Your task to perform on an android device: change your default location settings in chrome Image 0: 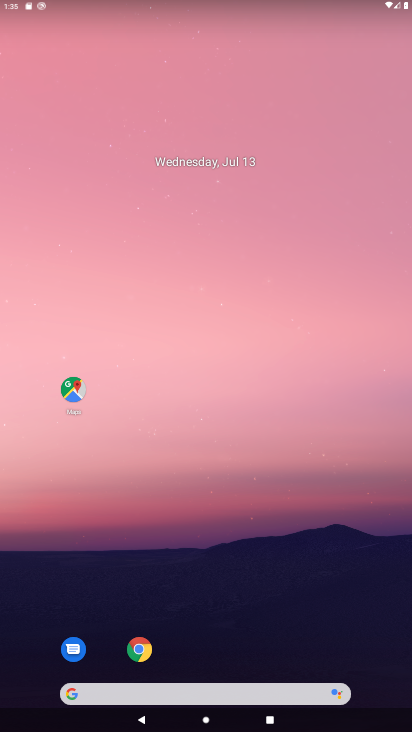
Step 0: drag from (371, 657) to (2, 213)
Your task to perform on an android device: change your default location settings in chrome Image 1: 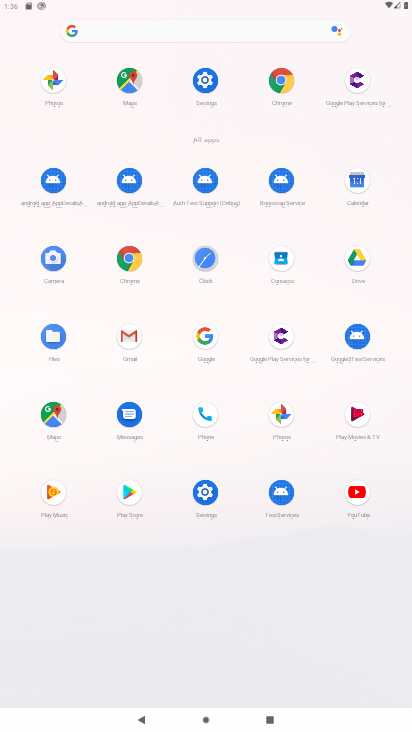
Step 1: click (121, 262)
Your task to perform on an android device: change your default location settings in chrome Image 2: 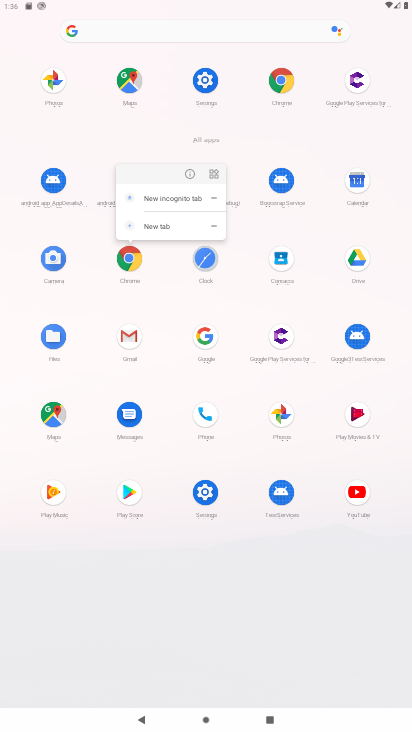
Step 2: click (185, 170)
Your task to perform on an android device: change your default location settings in chrome Image 3: 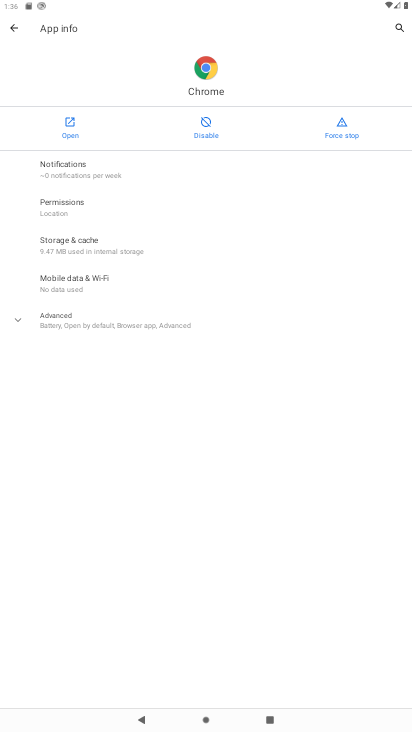
Step 3: click (53, 235)
Your task to perform on an android device: change your default location settings in chrome Image 4: 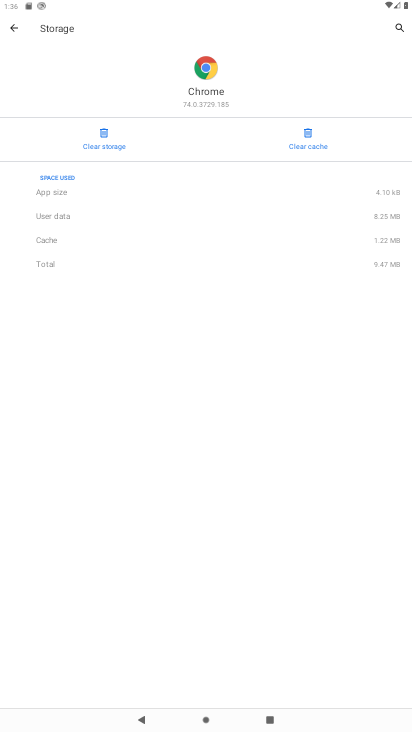
Step 4: click (9, 36)
Your task to perform on an android device: change your default location settings in chrome Image 5: 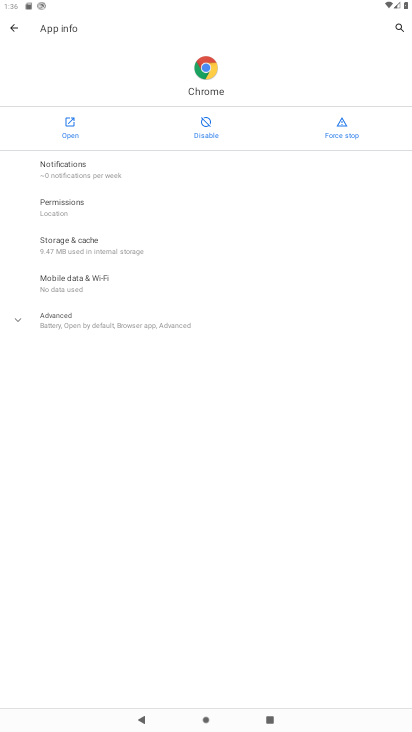
Step 5: click (82, 318)
Your task to perform on an android device: change your default location settings in chrome Image 6: 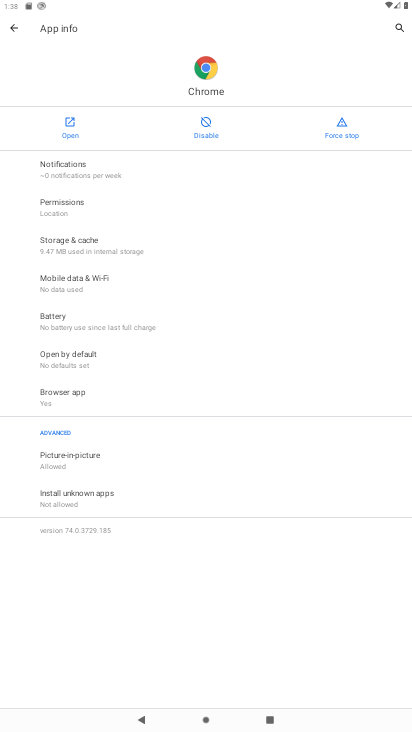
Step 6: click (57, 211)
Your task to perform on an android device: change your default location settings in chrome Image 7: 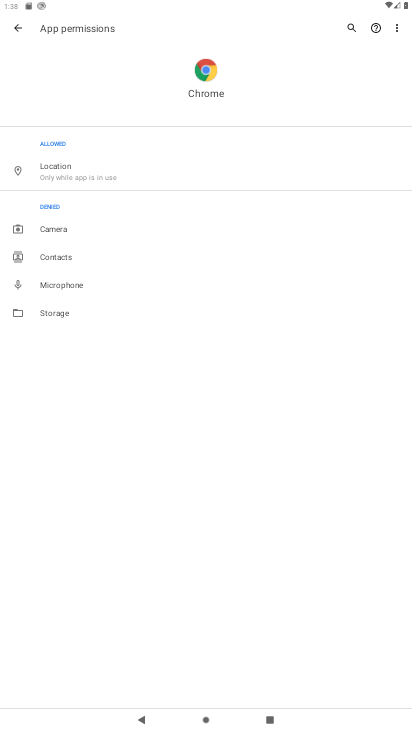
Step 7: click (49, 176)
Your task to perform on an android device: change your default location settings in chrome Image 8: 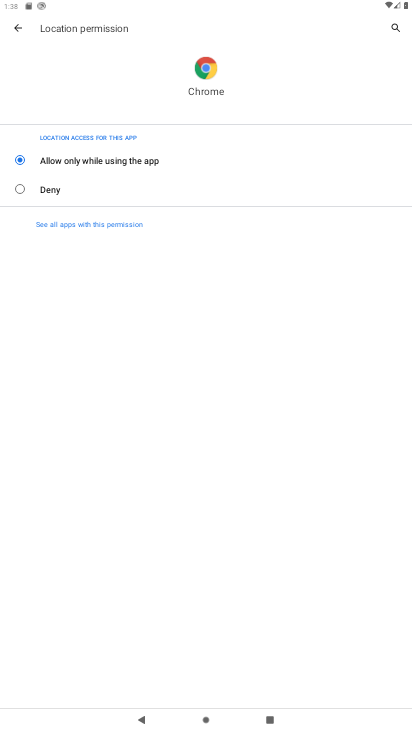
Step 8: task complete